Your task to perform on an android device: Go to privacy settings Image 0: 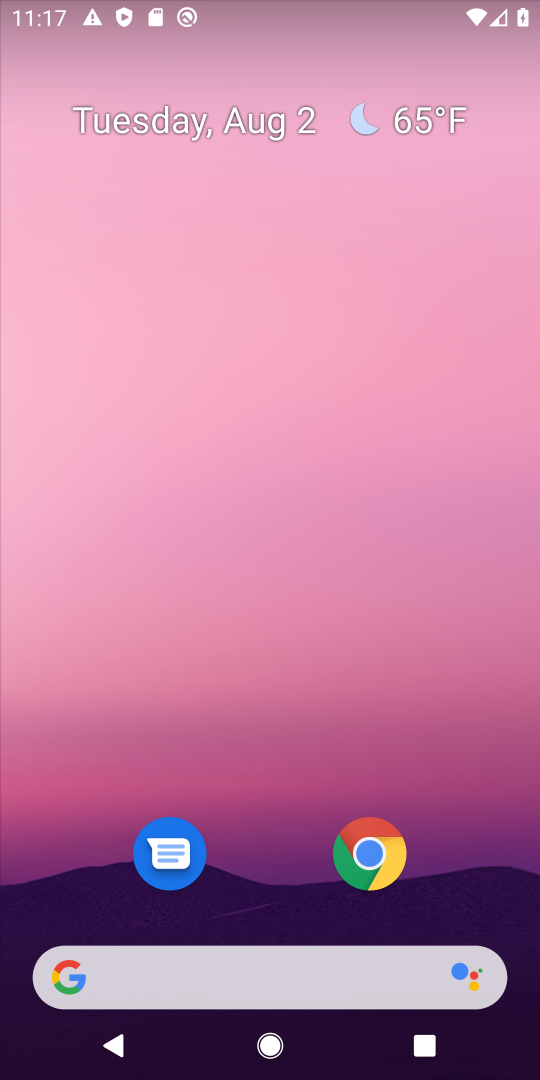
Step 0: press home button
Your task to perform on an android device: Go to privacy settings Image 1: 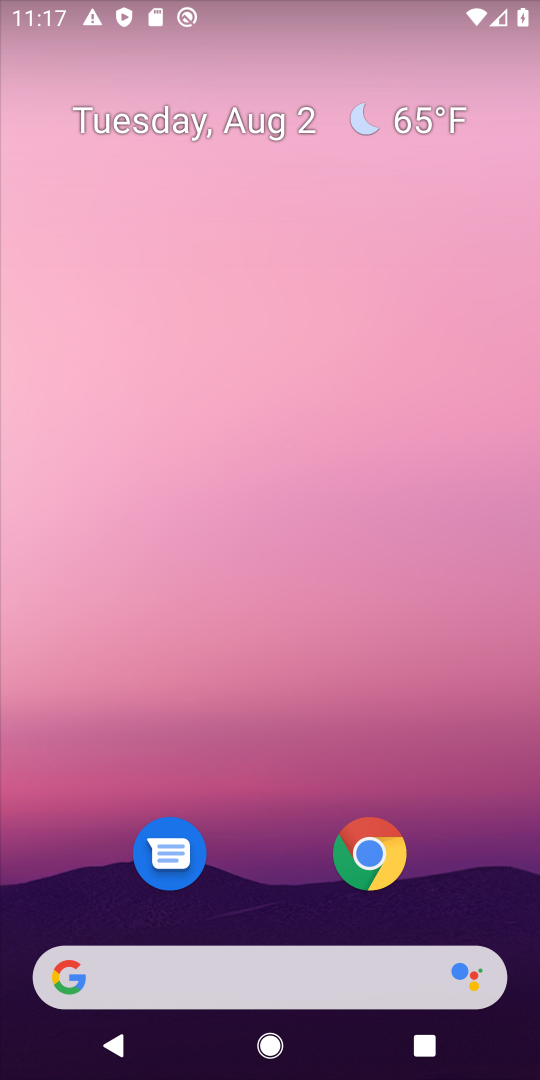
Step 1: click (325, 353)
Your task to perform on an android device: Go to privacy settings Image 2: 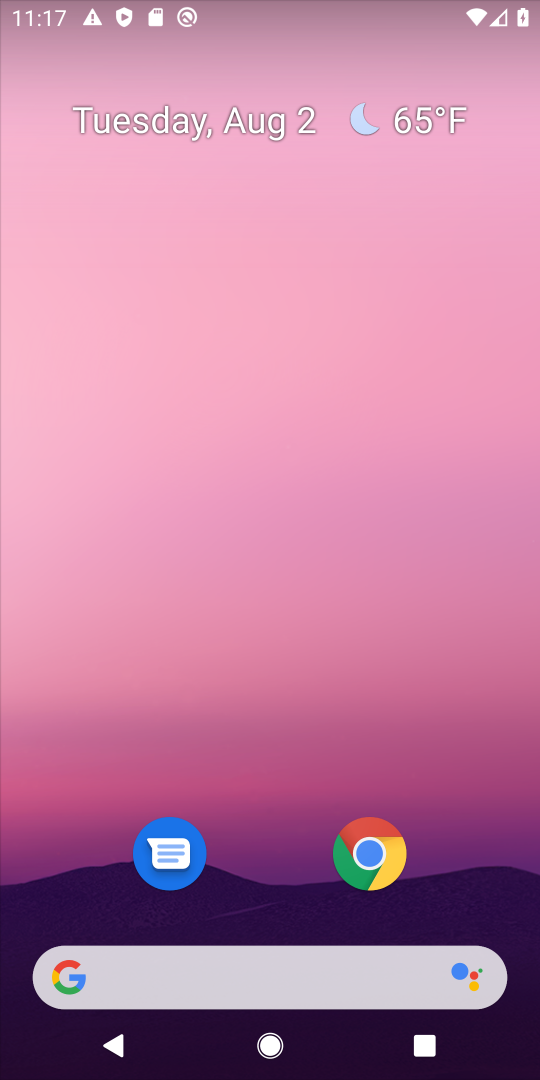
Step 2: drag from (276, 845) to (283, 28)
Your task to perform on an android device: Go to privacy settings Image 3: 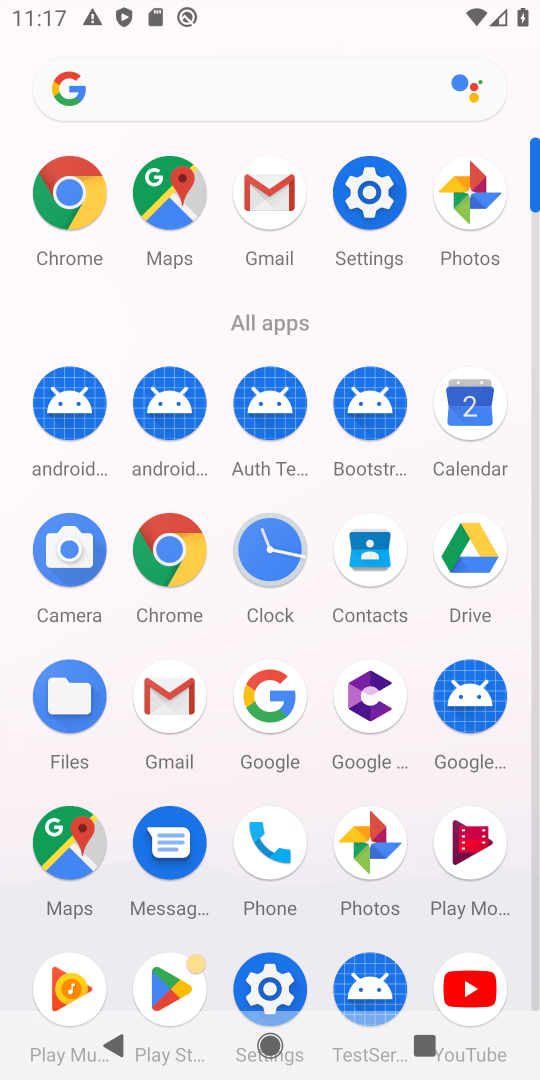
Step 3: click (270, 960)
Your task to perform on an android device: Go to privacy settings Image 4: 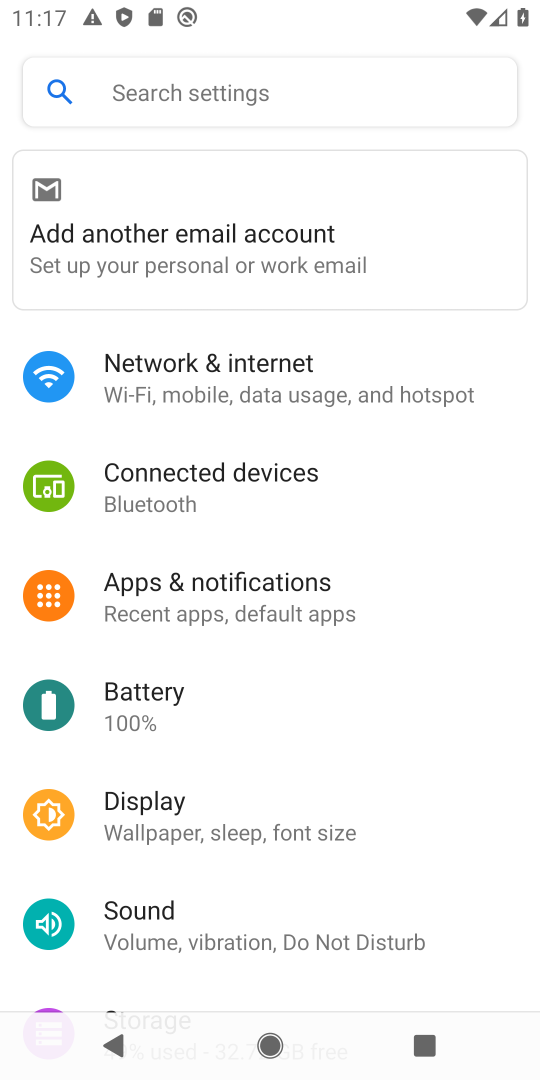
Step 4: drag from (206, 833) to (213, 126)
Your task to perform on an android device: Go to privacy settings Image 5: 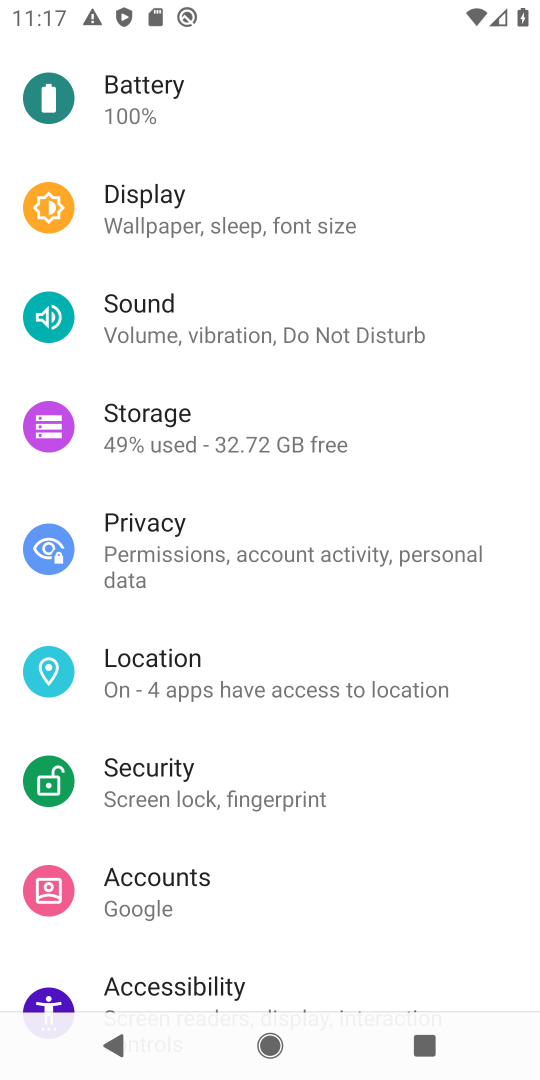
Step 5: click (137, 577)
Your task to perform on an android device: Go to privacy settings Image 6: 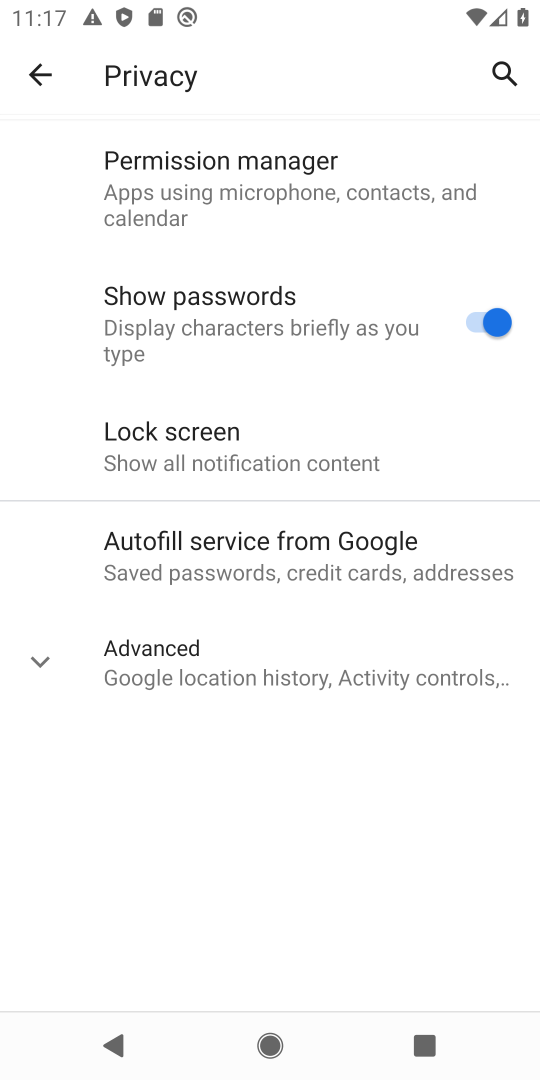
Step 6: task complete